Your task to perform on an android device: See recent photos Image 0: 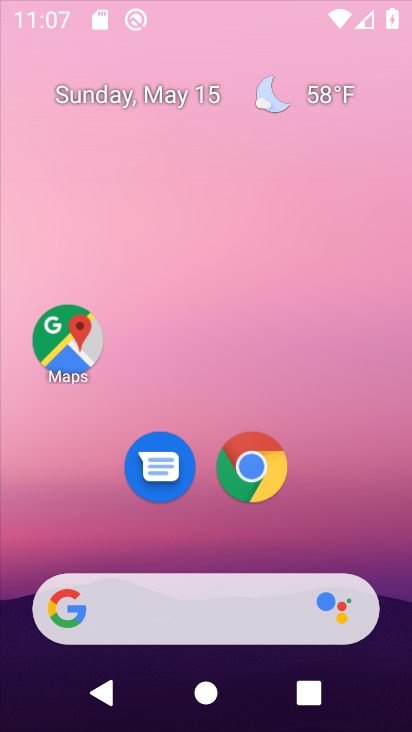
Step 0: drag from (215, 527) to (227, 62)
Your task to perform on an android device: See recent photos Image 1: 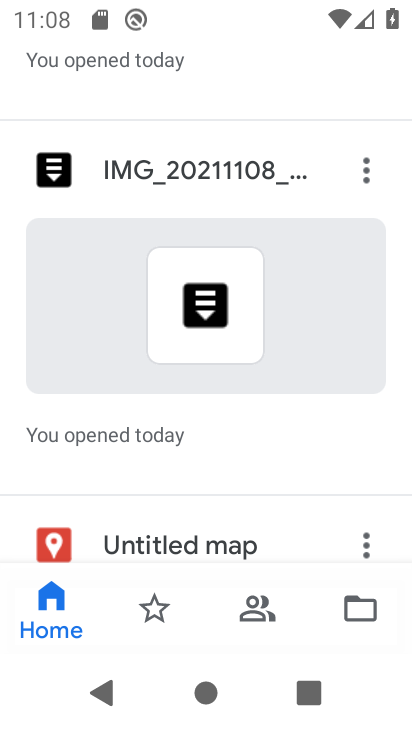
Step 1: press home button
Your task to perform on an android device: See recent photos Image 2: 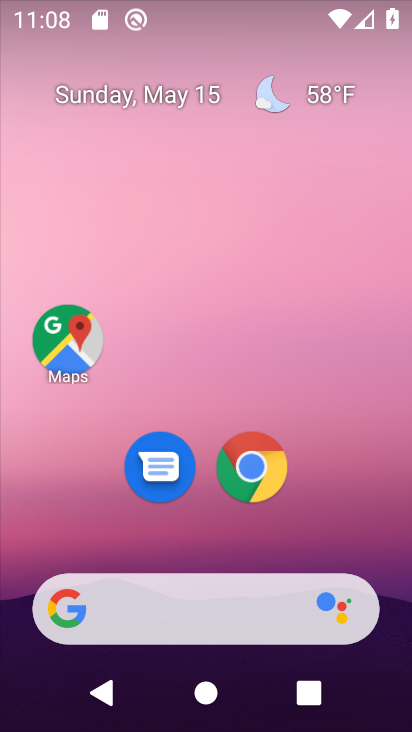
Step 2: drag from (198, 526) to (270, 104)
Your task to perform on an android device: See recent photos Image 3: 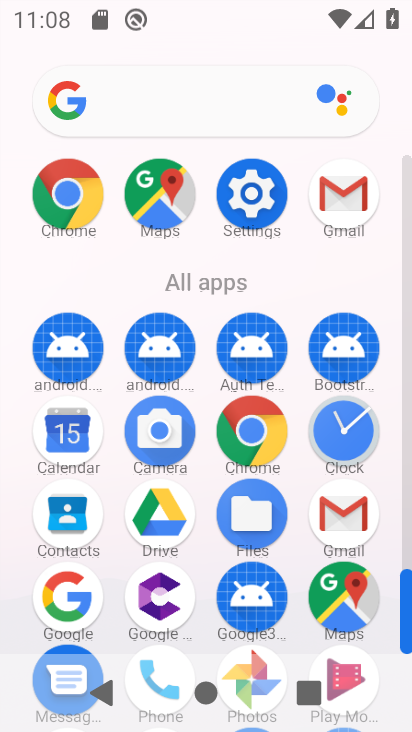
Step 3: drag from (195, 573) to (202, 203)
Your task to perform on an android device: See recent photos Image 4: 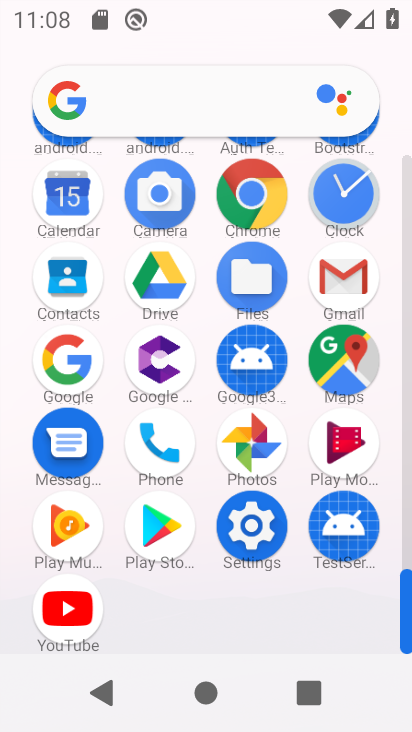
Step 4: click (251, 438)
Your task to perform on an android device: See recent photos Image 5: 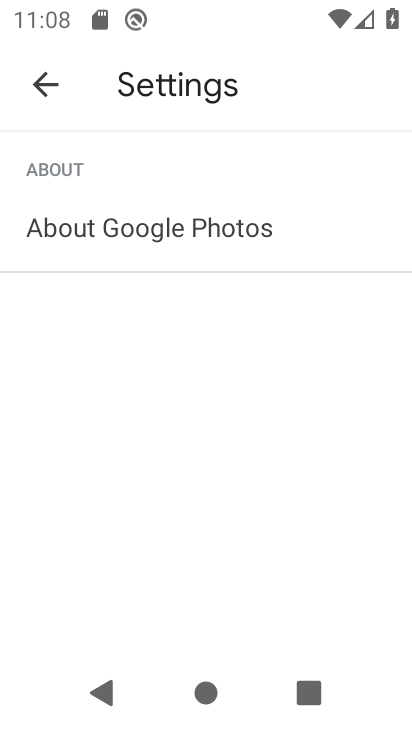
Step 5: click (56, 96)
Your task to perform on an android device: See recent photos Image 6: 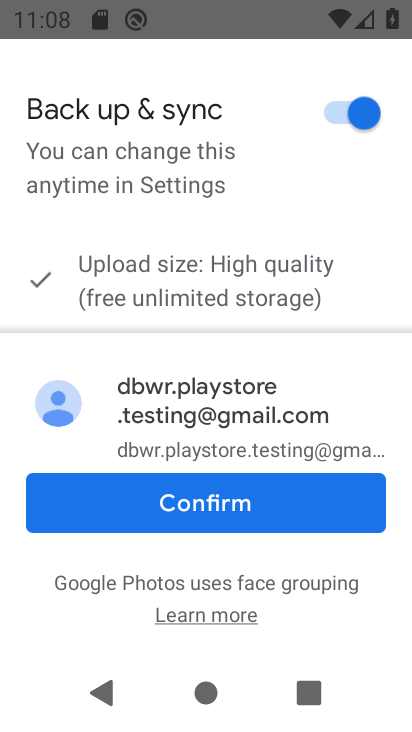
Step 6: click (177, 501)
Your task to perform on an android device: See recent photos Image 7: 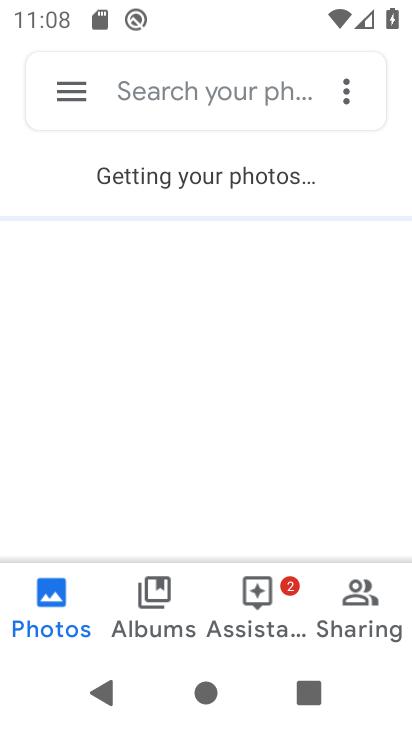
Step 7: task complete